Your task to perform on an android device: snooze an email in the gmail app Image 0: 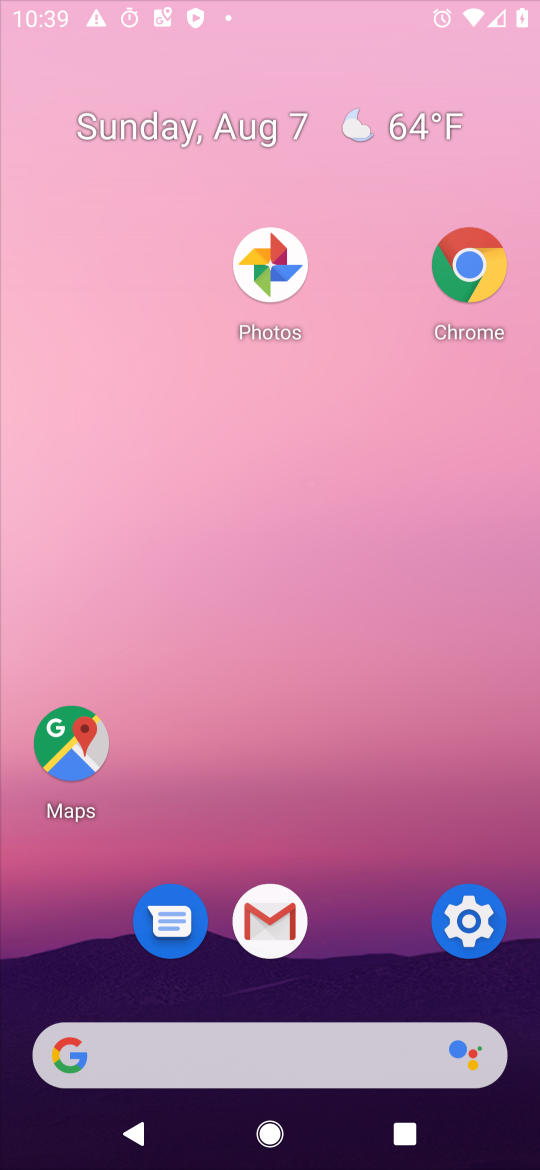
Step 0: press home button
Your task to perform on an android device: snooze an email in the gmail app Image 1: 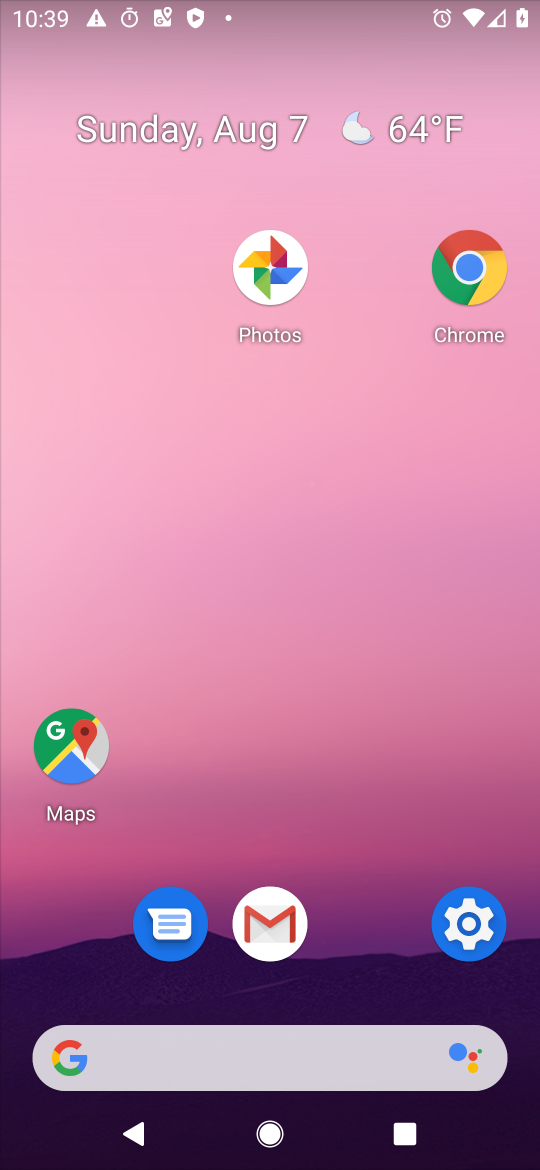
Step 1: drag from (375, 897) to (368, 97)
Your task to perform on an android device: snooze an email in the gmail app Image 2: 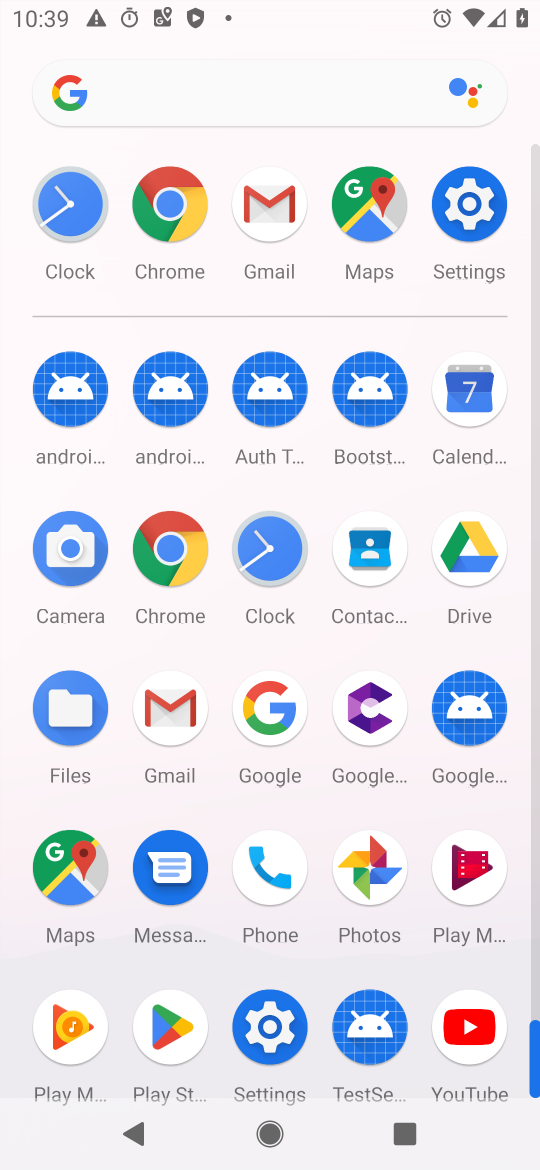
Step 2: click (248, 222)
Your task to perform on an android device: snooze an email in the gmail app Image 3: 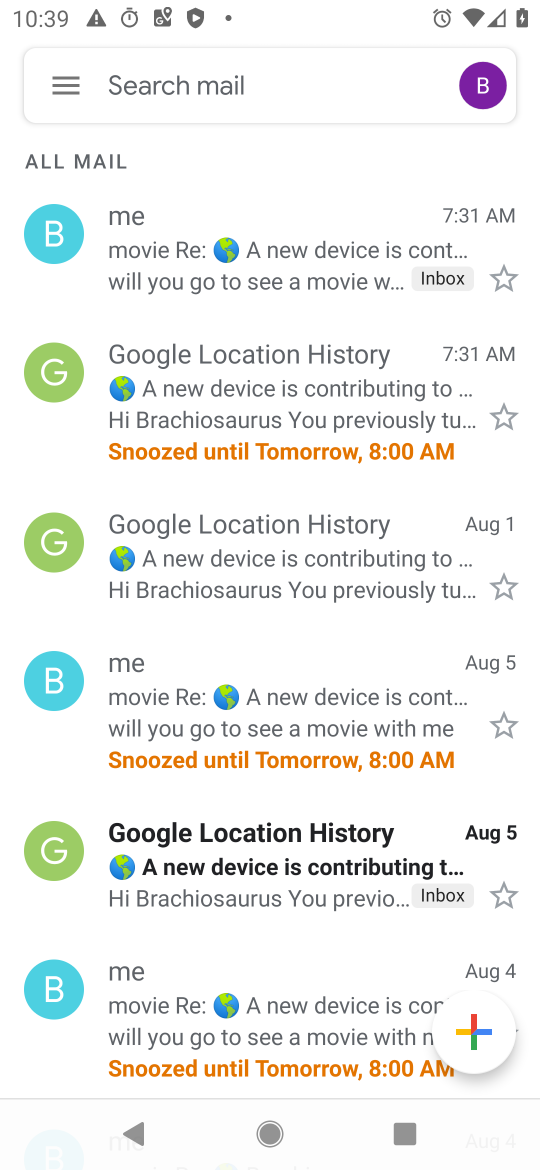
Step 3: click (67, 100)
Your task to perform on an android device: snooze an email in the gmail app Image 4: 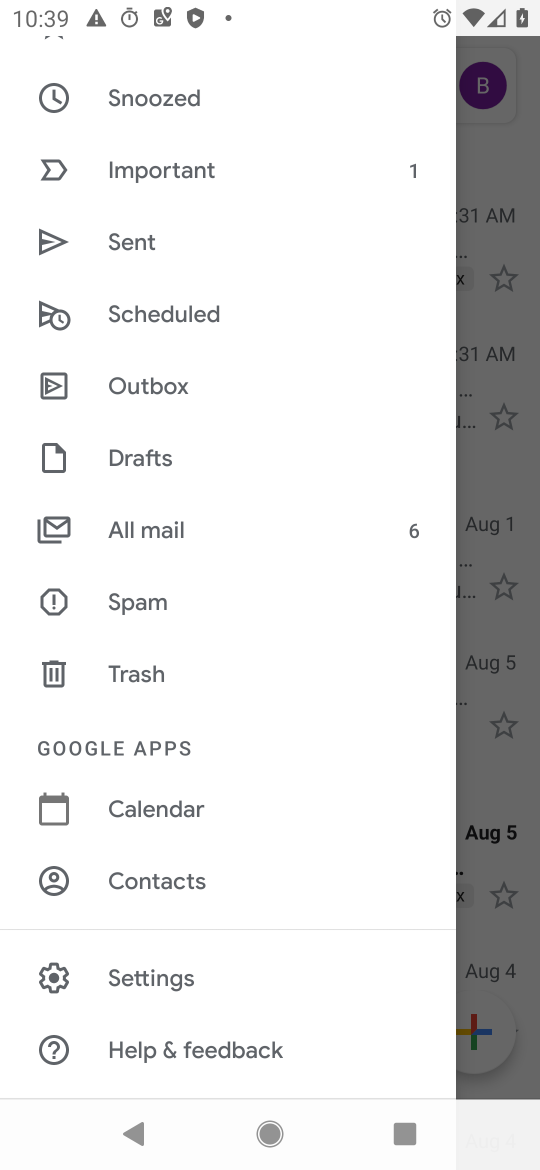
Step 4: click (157, 98)
Your task to perform on an android device: snooze an email in the gmail app Image 5: 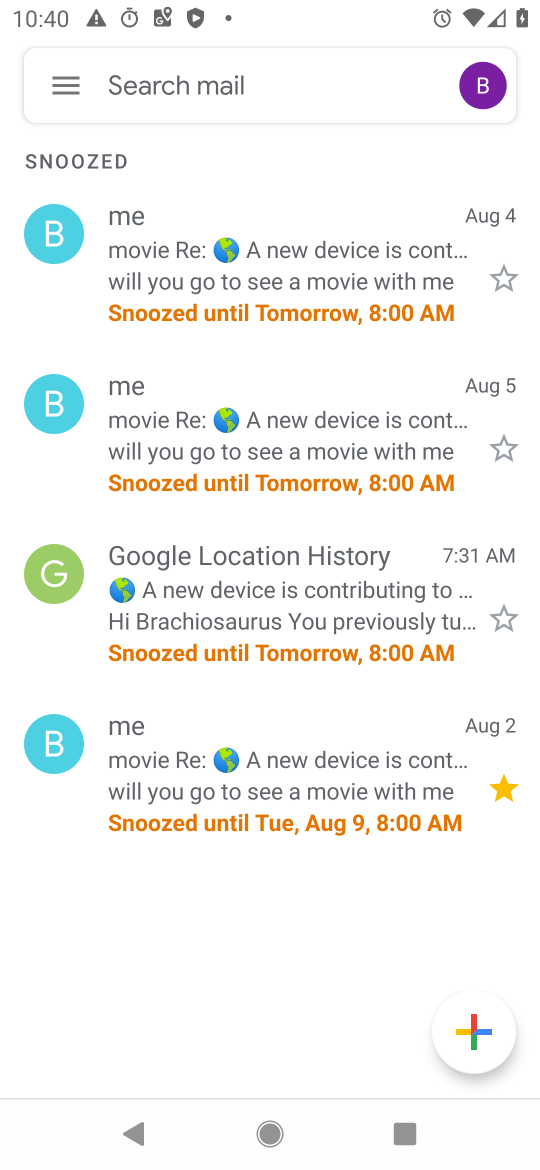
Step 5: task complete